Your task to perform on an android device: turn on airplane mode Image 0: 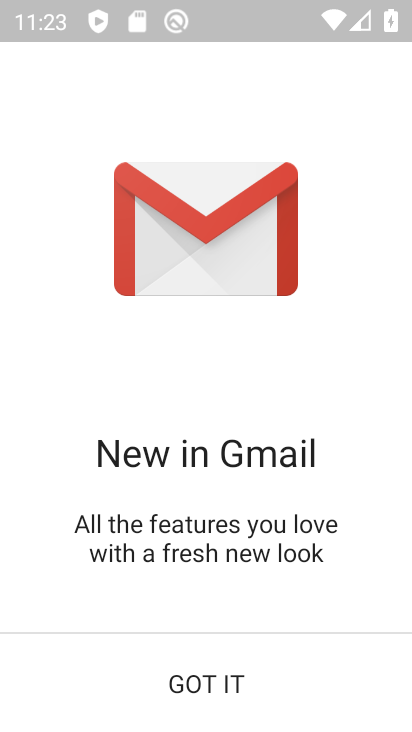
Step 0: press back button
Your task to perform on an android device: turn on airplane mode Image 1: 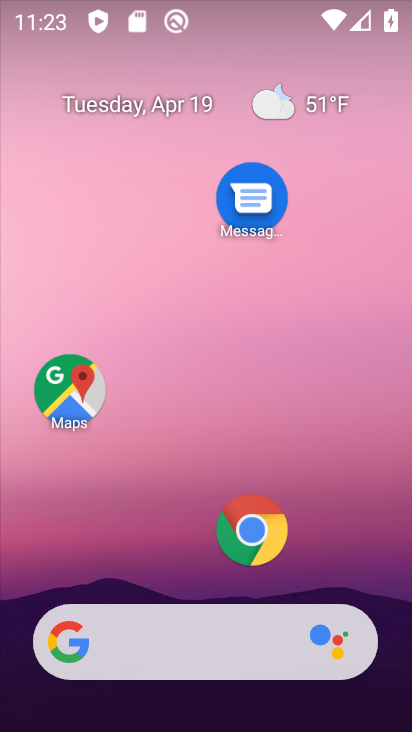
Step 1: drag from (128, 591) to (296, 16)
Your task to perform on an android device: turn on airplane mode Image 2: 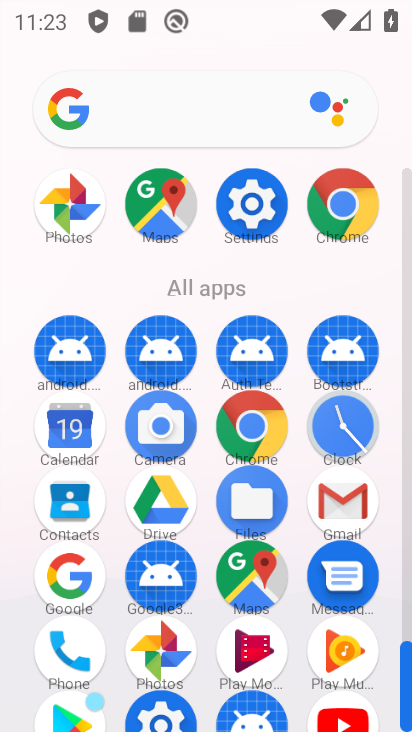
Step 2: click (245, 212)
Your task to perform on an android device: turn on airplane mode Image 3: 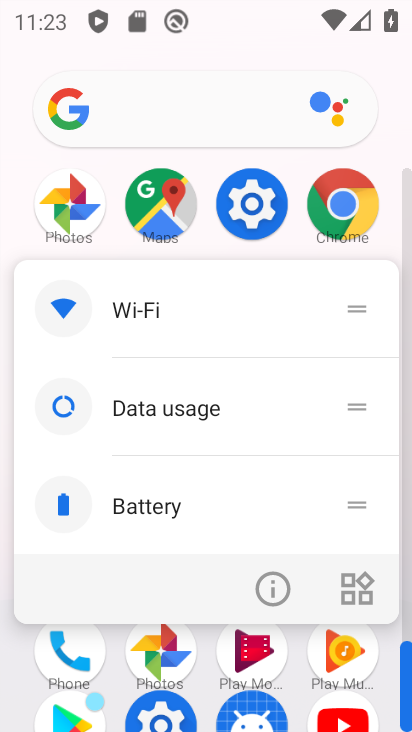
Step 3: click (251, 184)
Your task to perform on an android device: turn on airplane mode Image 4: 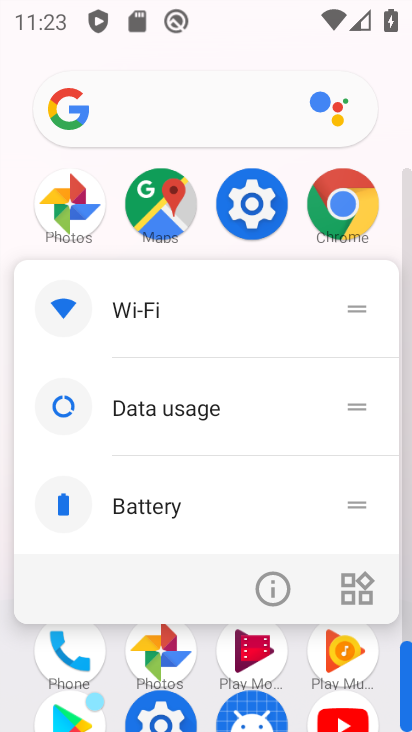
Step 4: click (251, 193)
Your task to perform on an android device: turn on airplane mode Image 5: 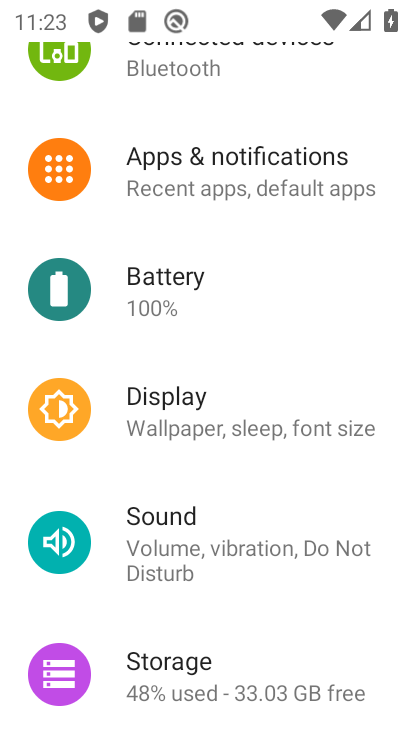
Step 5: drag from (262, 192) to (222, 615)
Your task to perform on an android device: turn on airplane mode Image 6: 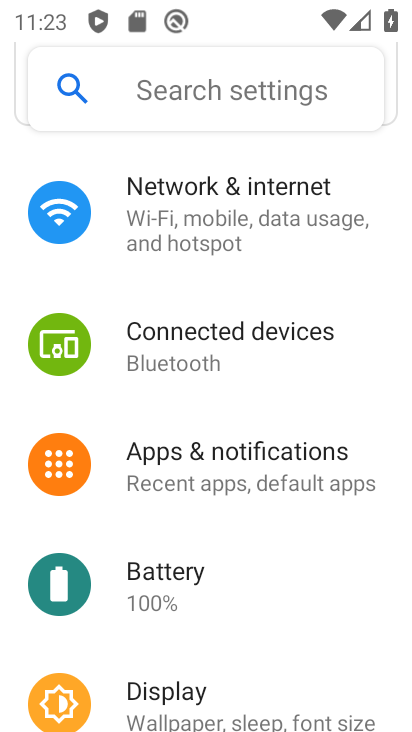
Step 6: click (269, 246)
Your task to perform on an android device: turn on airplane mode Image 7: 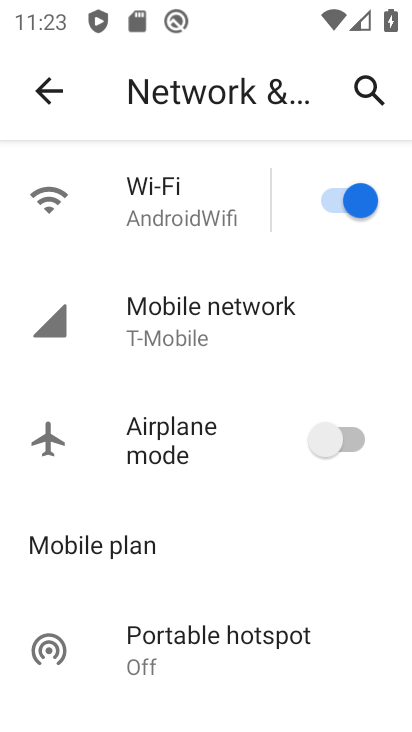
Step 7: click (364, 438)
Your task to perform on an android device: turn on airplane mode Image 8: 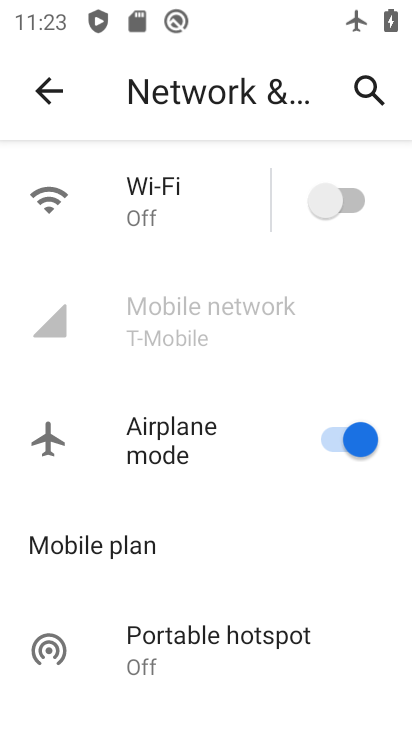
Step 8: task complete